Your task to perform on an android device: set the stopwatch Image 0: 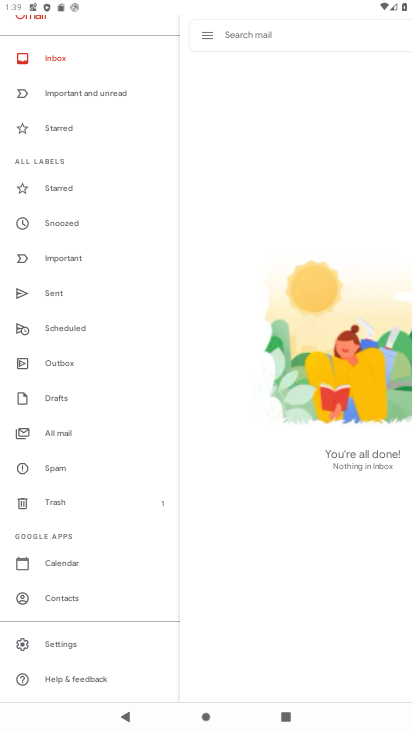
Step 0: press home button
Your task to perform on an android device: set the stopwatch Image 1: 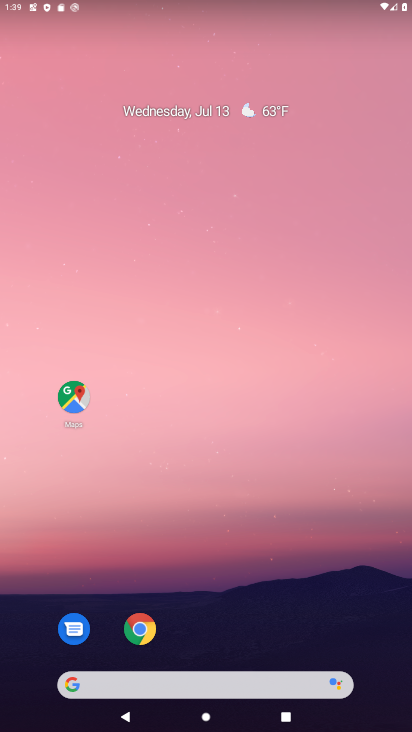
Step 1: drag from (186, 641) to (180, 245)
Your task to perform on an android device: set the stopwatch Image 2: 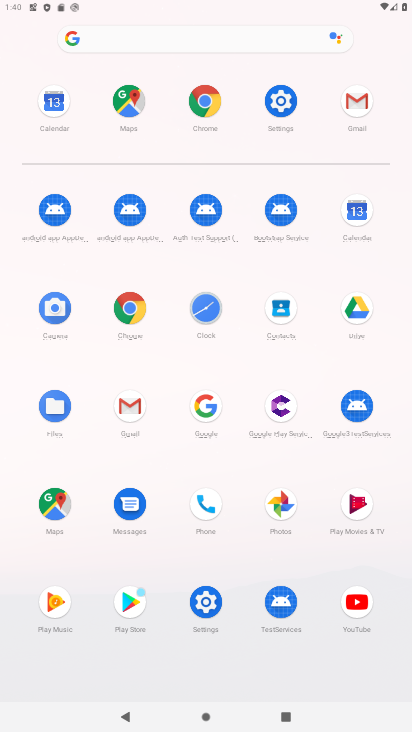
Step 2: click (204, 320)
Your task to perform on an android device: set the stopwatch Image 3: 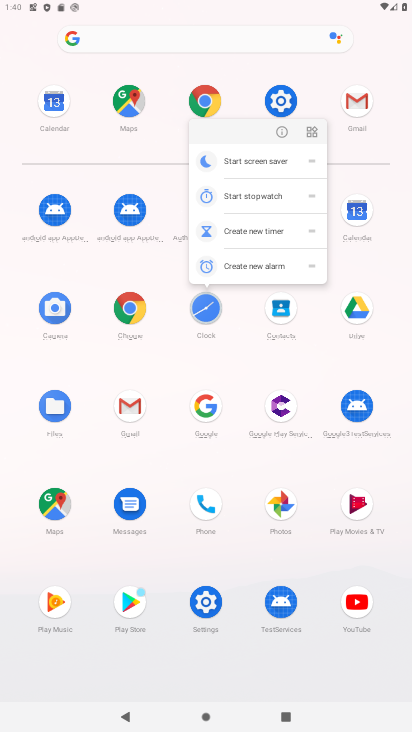
Step 3: click (276, 131)
Your task to perform on an android device: set the stopwatch Image 4: 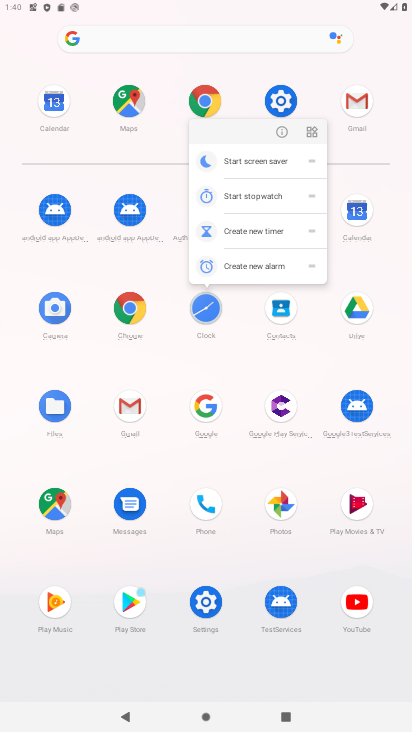
Step 4: click (276, 131)
Your task to perform on an android device: set the stopwatch Image 5: 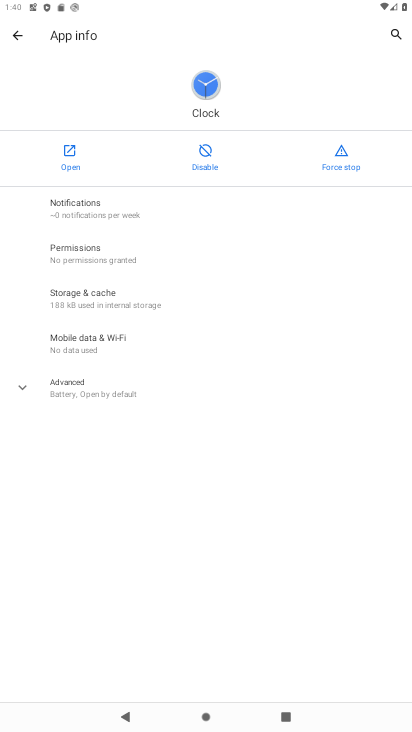
Step 5: click (63, 161)
Your task to perform on an android device: set the stopwatch Image 6: 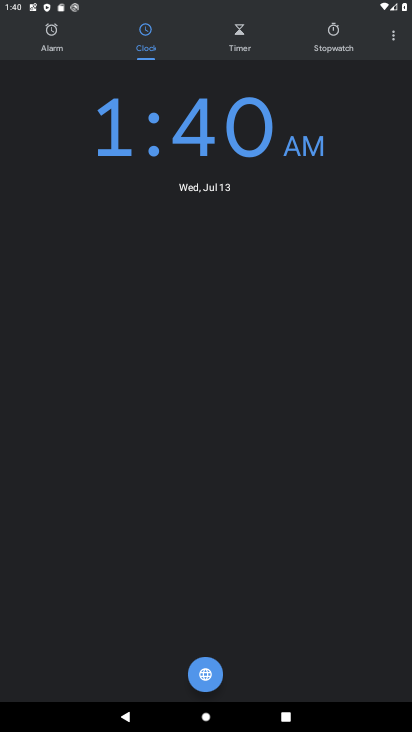
Step 6: click (334, 47)
Your task to perform on an android device: set the stopwatch Image 7: 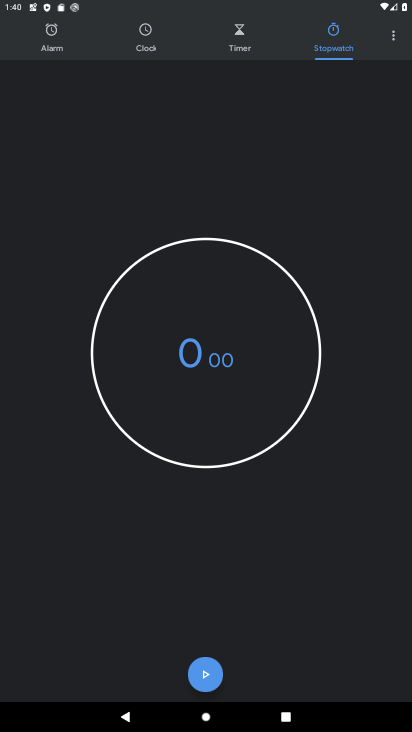
Step 7: click (195, 683)
Your task to perform on an android device: set the stopwatch Image 8: 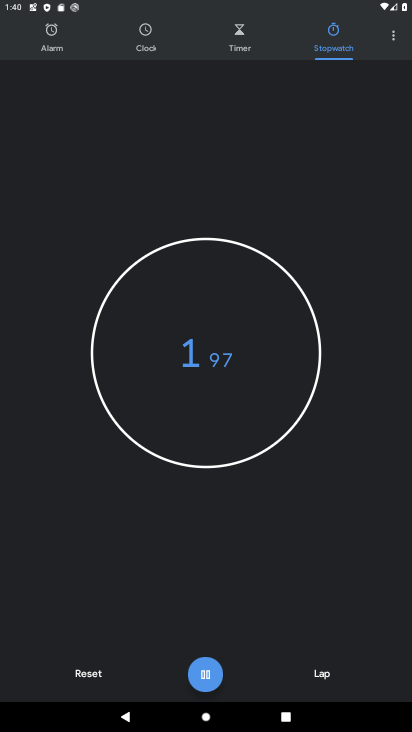
Step 8: task complete